Your task to perform on an android device: turn on the 24-hour format for clock Image 0: 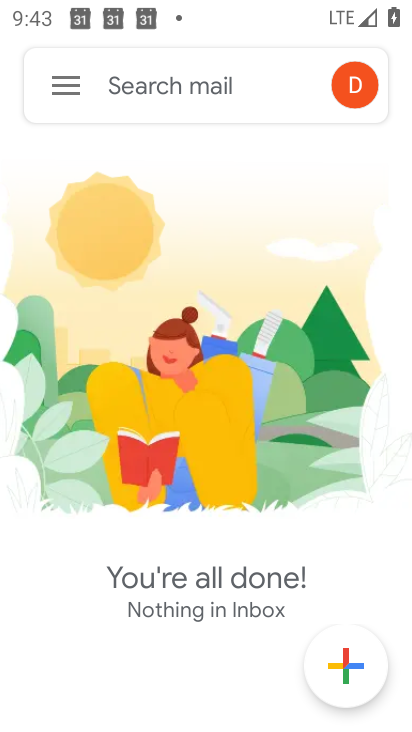
Step 0: press back button
Your task to perform on an android device: turn on the 24-hour format for clock Image 1: 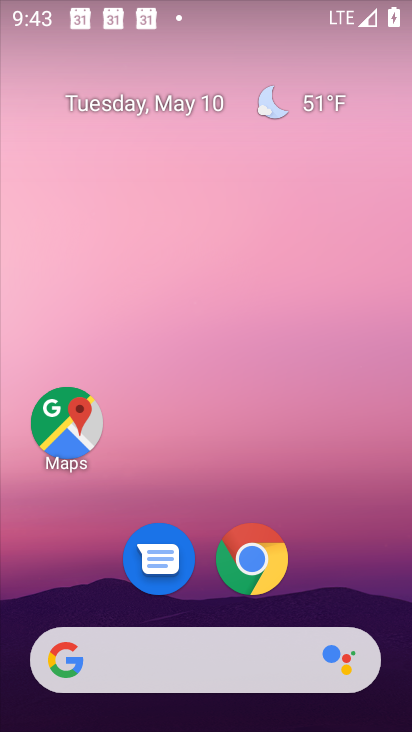
Step 1: drag from (338, 520) to (257, 59)
Your task to perform on an android device: turn on the 24-hour format for clock Image 2: 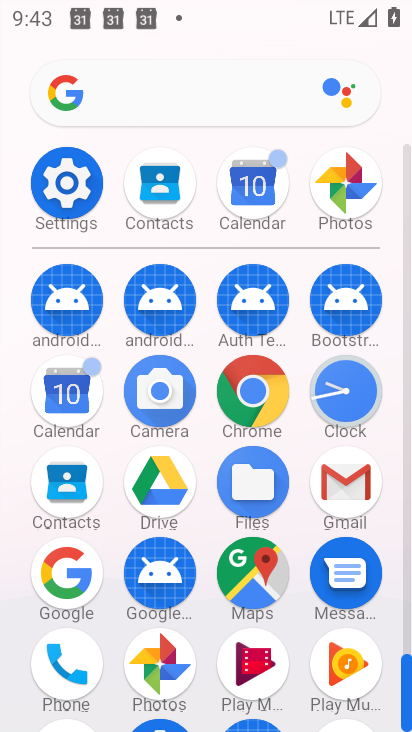
Step 2: click (346, 391)
Your task to perform on an android device: turn on the 24-hour format for clock Image 3: 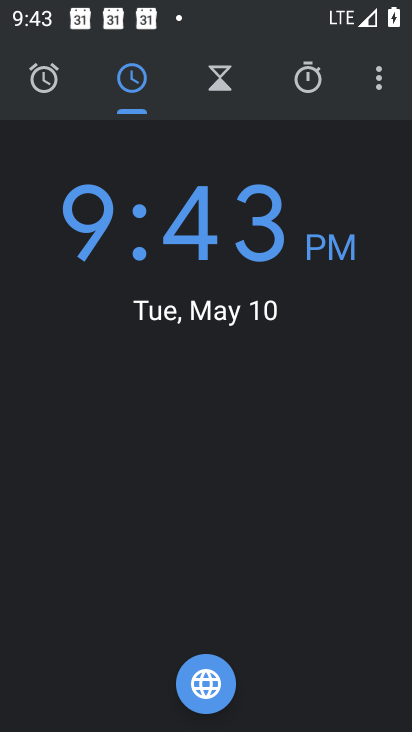
Step 3: click (378, 77)
Your task to perform on an android device: turn on the 24-hour format for clock Image 4: 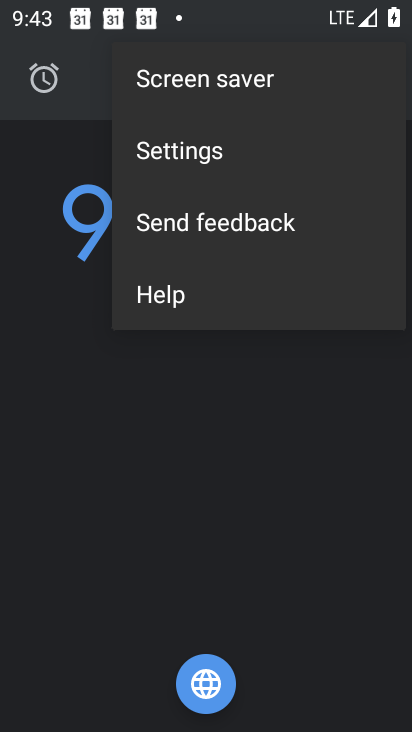
Step 4: click (201, 149)
Your task to perform on an android device: turn on the 24-hour format for clock Image 5: 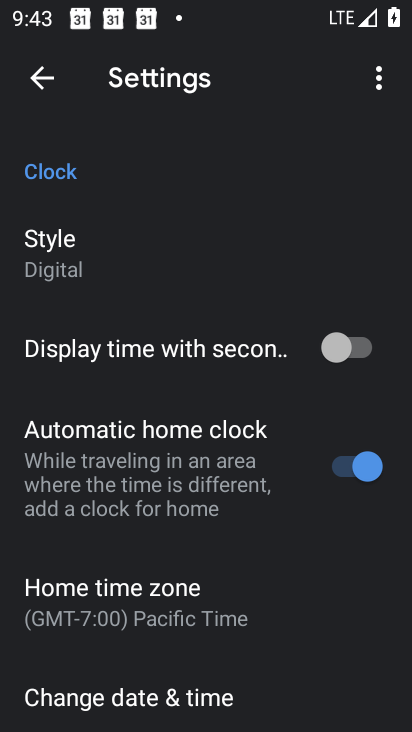
Step 5: drag from (142, 556) to (167, 408)
Your task to perform on an android device: turn on the 24-hour format for clock Image 6: 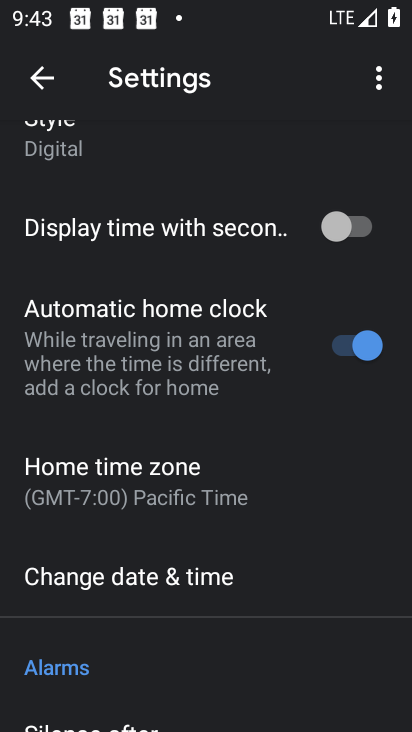
Step 6: click (121, 584)
Your task to perform on an android device: turn on the 24-hour format for clock Image 7: 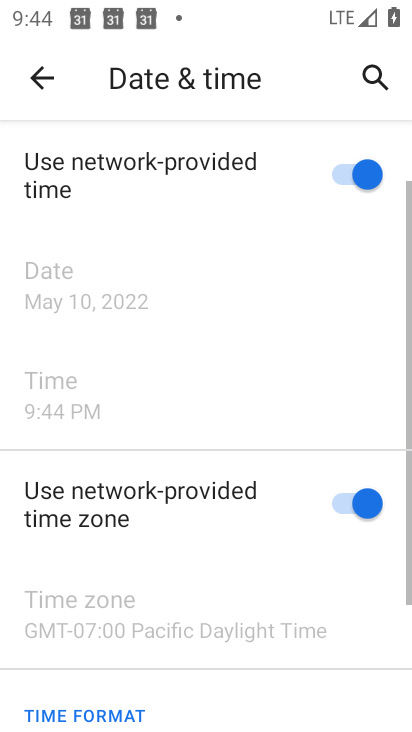
Step 7: drag from (162, 648) to (197, 413)
Your task to perform on an android device: turn on the 24-hour format for clock Image 8: 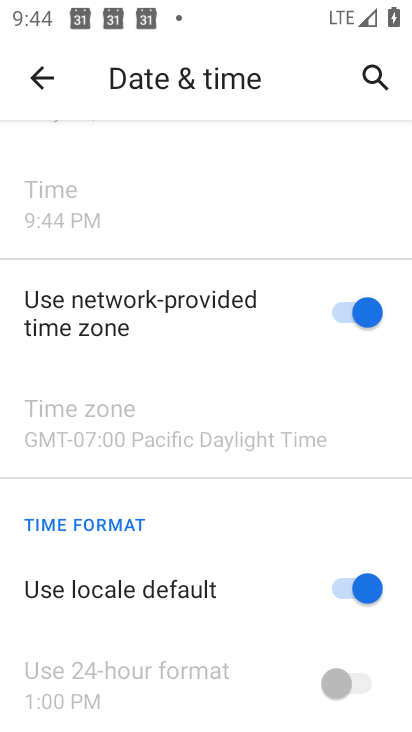
Step 8: click (372, 591)
Your task to perform on an android device: turn on the 24-hour format for clock Image 9: 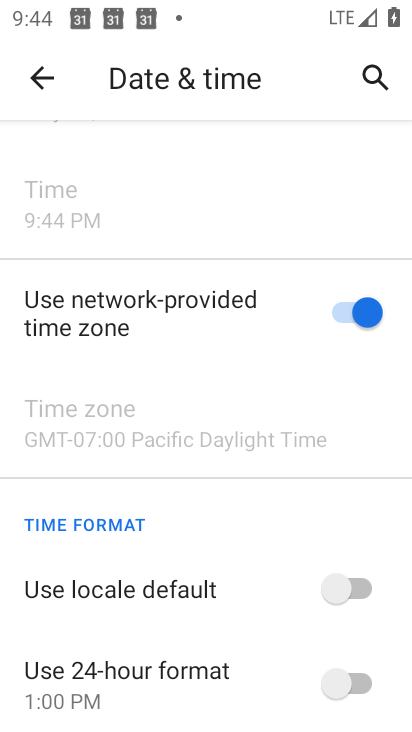
Step 9: click (365, 683)
Your task to perform on an android device: turn on the 24-hour format for clock Image 10: 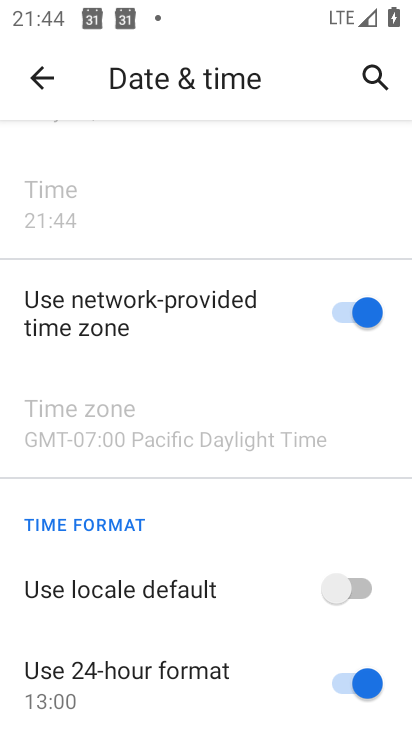
Step 10: task complete